Your task to perform on an android device: open device folders in google photos Image 0: 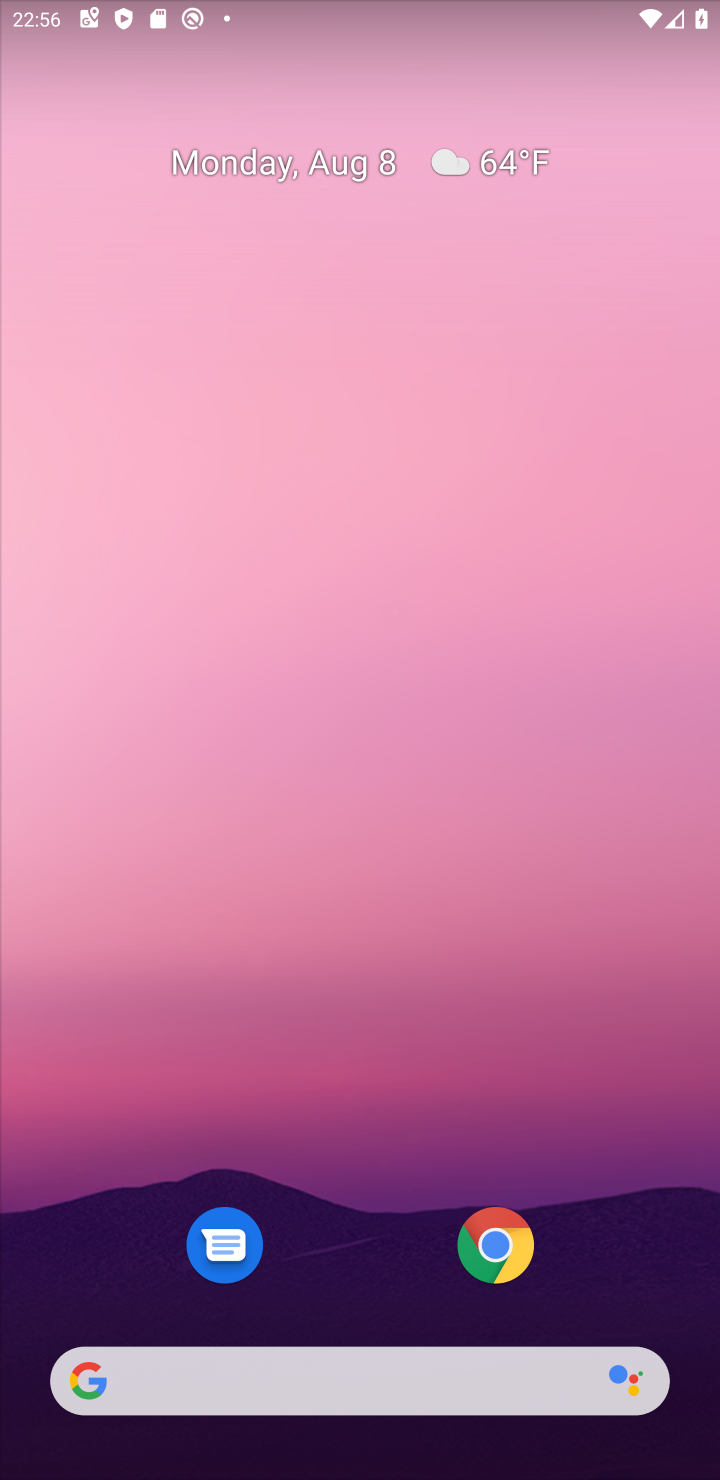
Step 0: drag from (378, 1179) to (296, 475)
Your task to perform on an android device: open device folders in google photos Image 1: 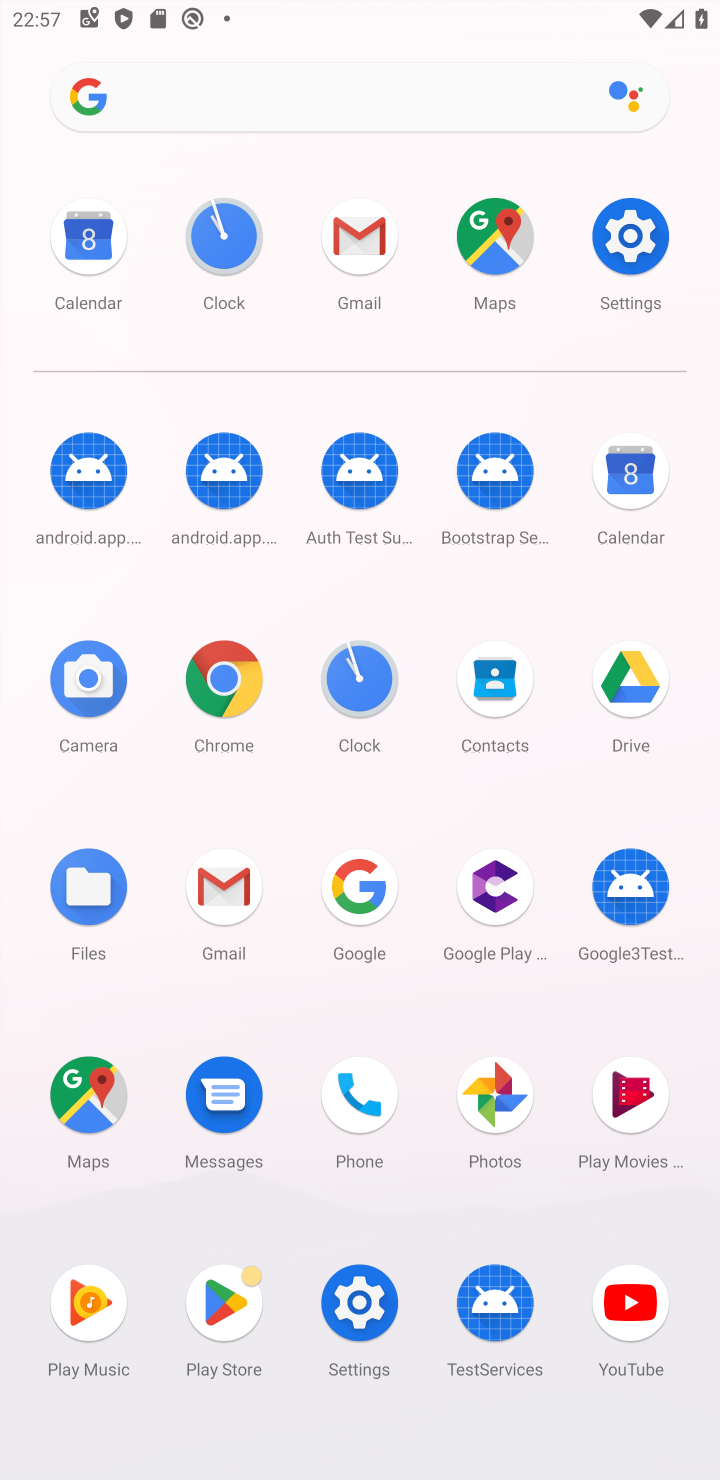
Step 1: click (505, 1086)
Your task to perform on an android device: open device folders in google photos Image 2: 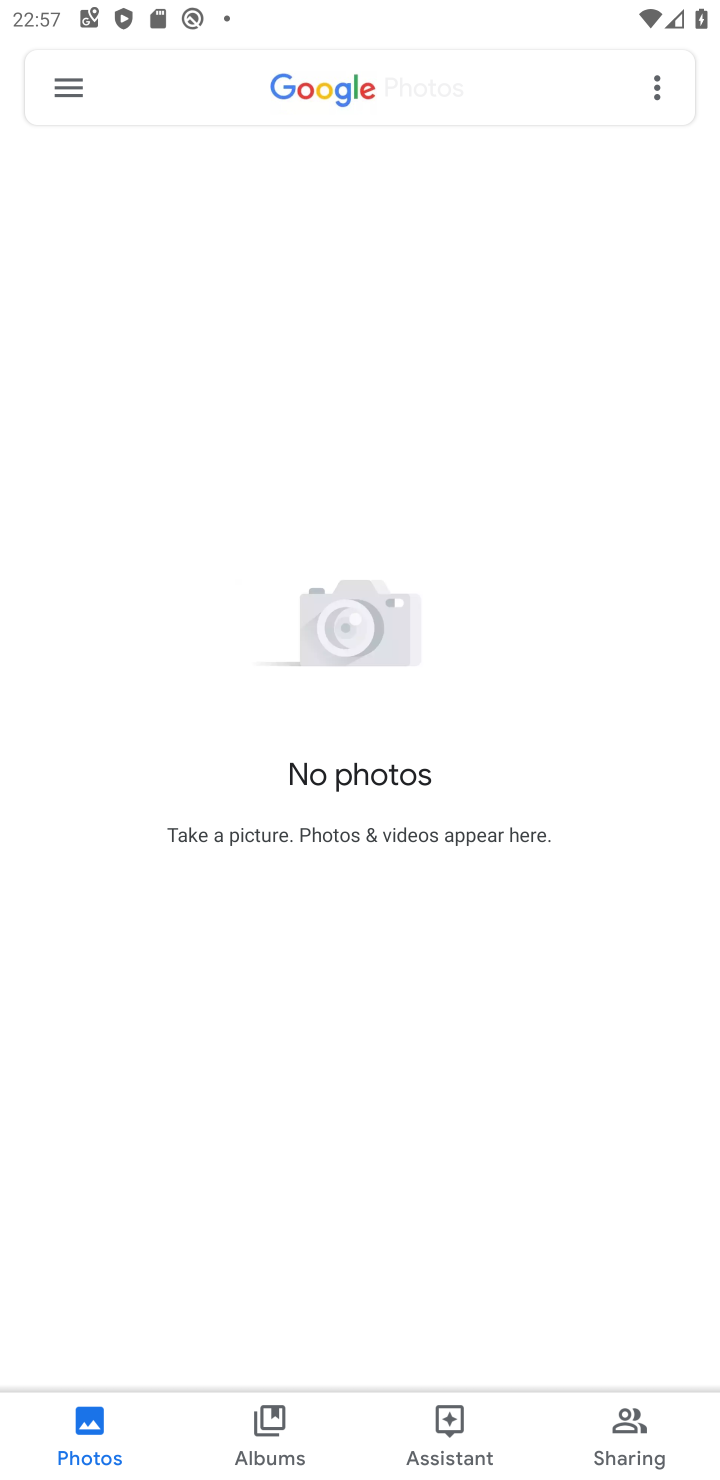
Step 2: click (267, 80)
Your task to perform on an android device: open device folders in google photos Image 3: 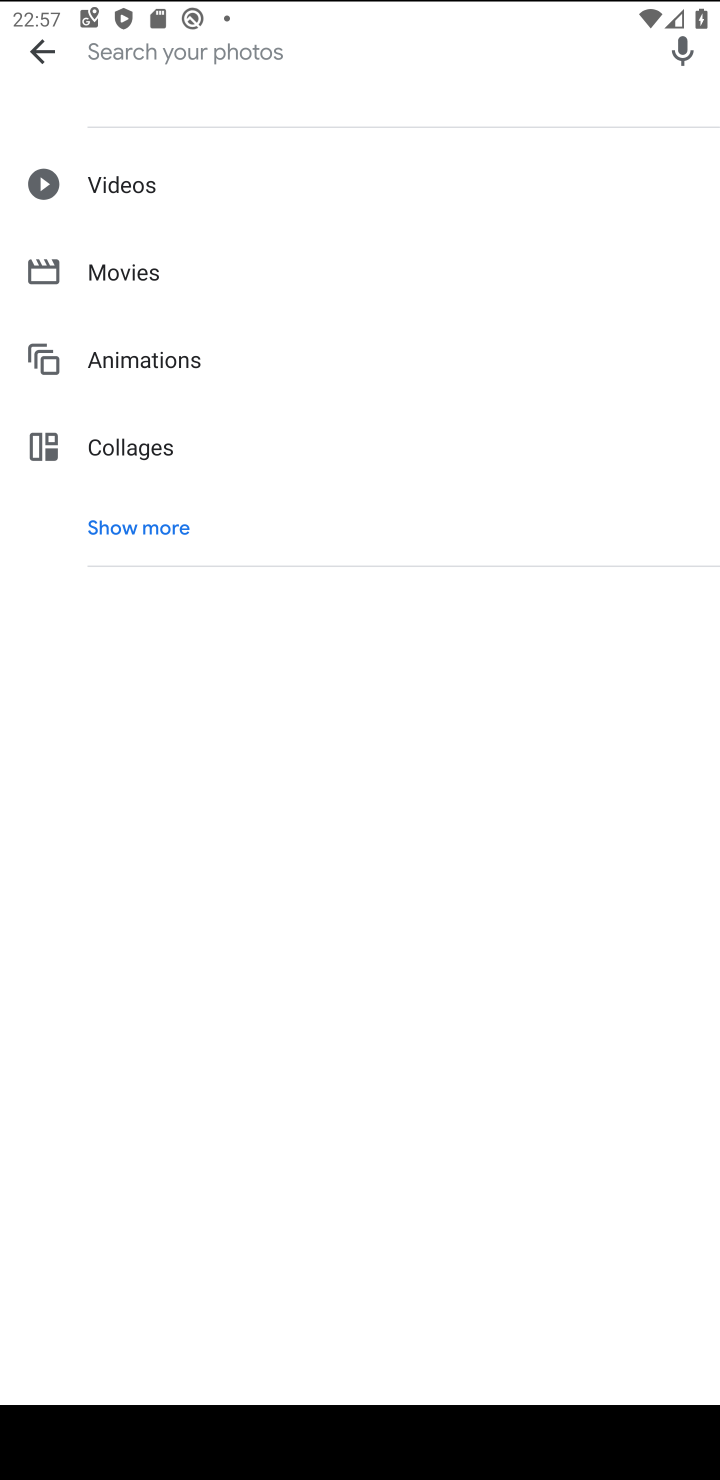
Step 3: type "device"
Your task to perform on an android device: open device folders in google photos Image 4: 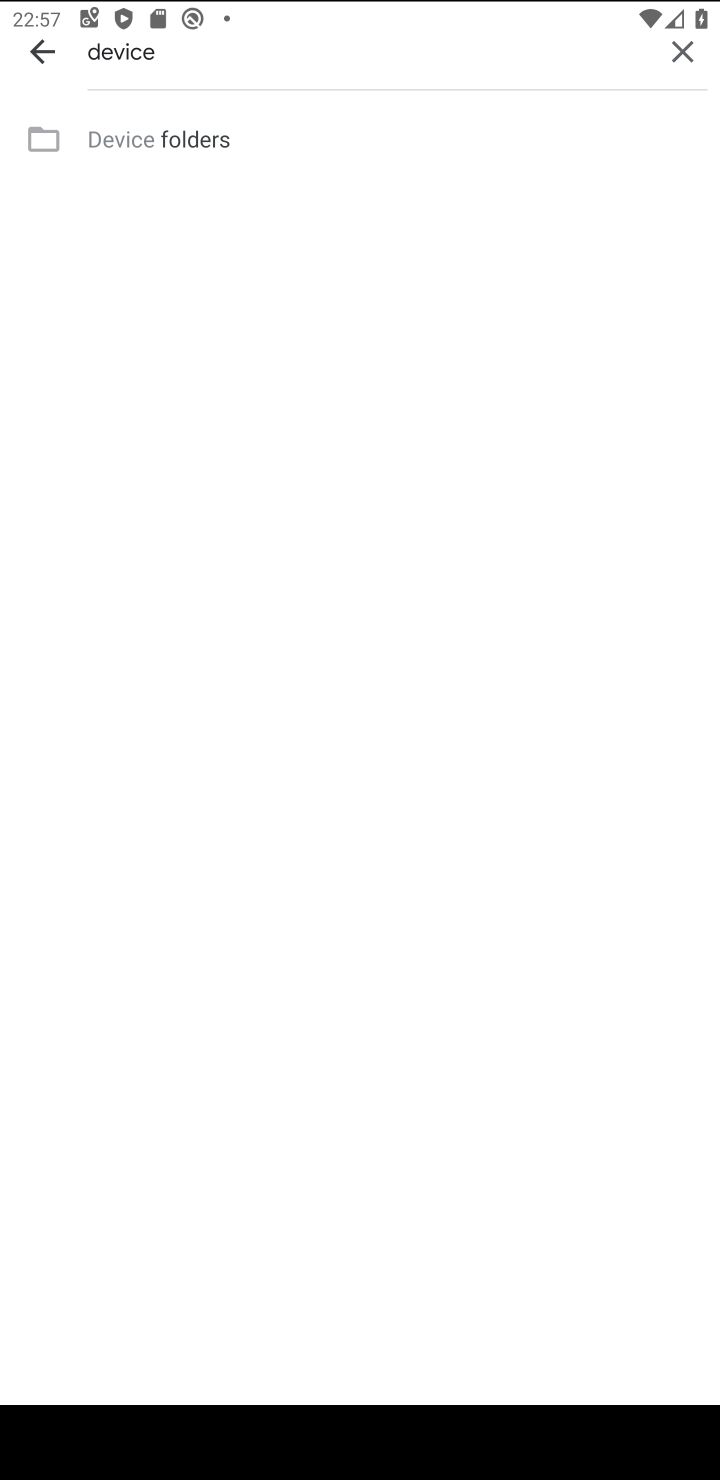
Step 4: click (165, 133)
Your task to perform on an android device: open device folders in google photos Image 5: 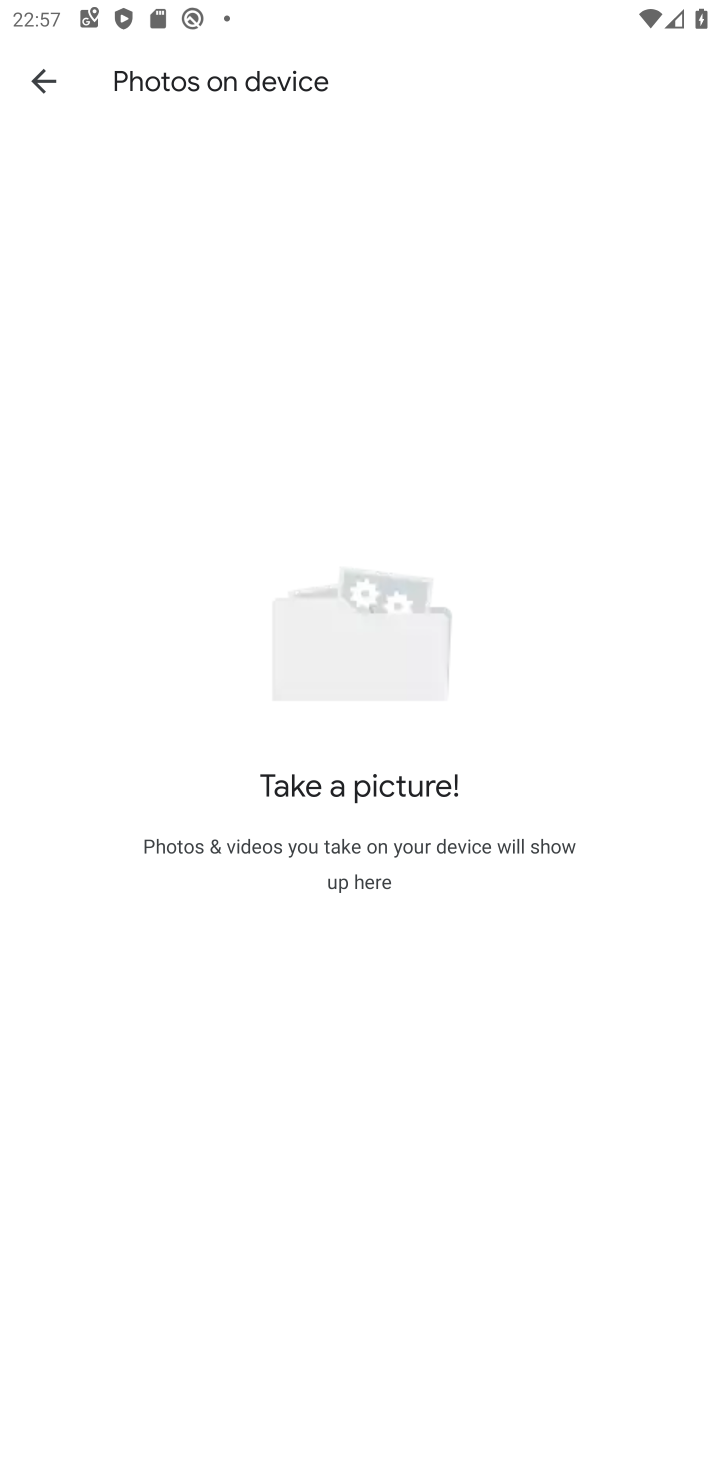
Step 5: task complete